Your task to perform on an android device: create a new album in the google photos Image 0: 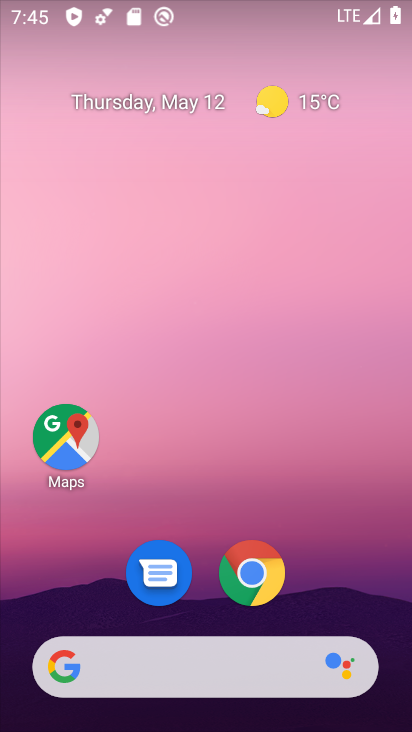
Step 0: drag from (221, 485) to (249, 49)
Your task to perform on an android device: create a new album in the google photos Image 1: 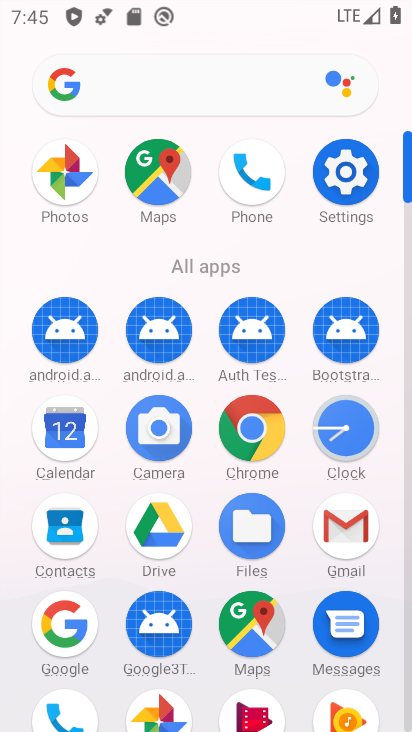
Step 1: click (60, 156)
Your task to perform on an android device: create a new album in the google photos Image 2: 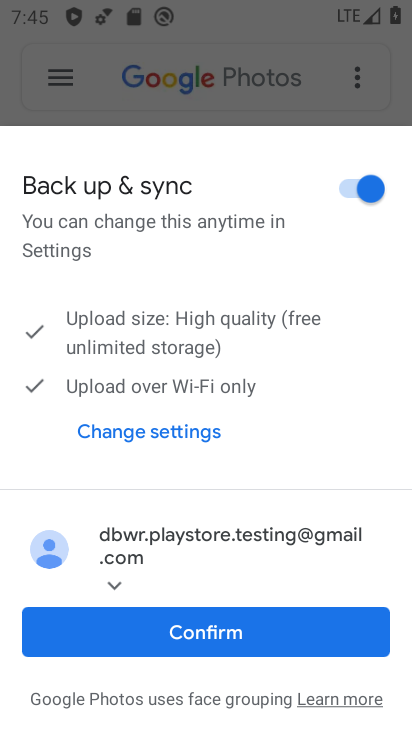
Step 2: click (304, 631)
Your task to perform on an android device: create a new album in the google photos Image 3: 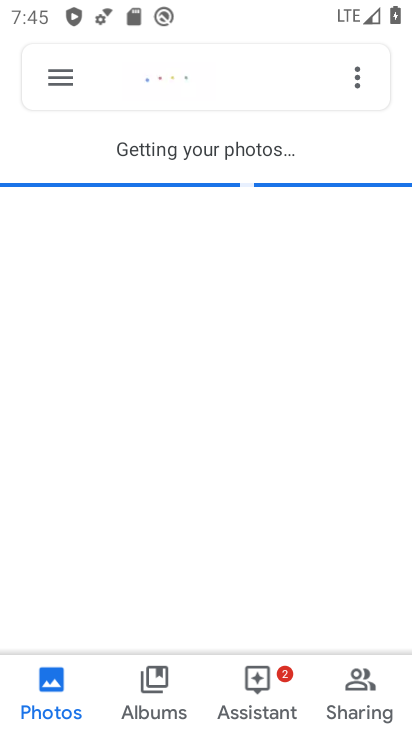
Step 3: click (163, 697)
Your task to perform on an android device: create a new album in the google photos Image 4: 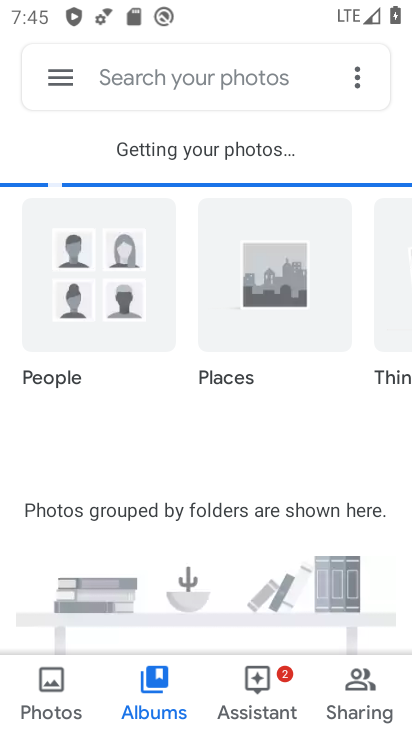
Step 4: click (353, 85)
Your task to perform on an android device: create a new album in the google photos Image 5: 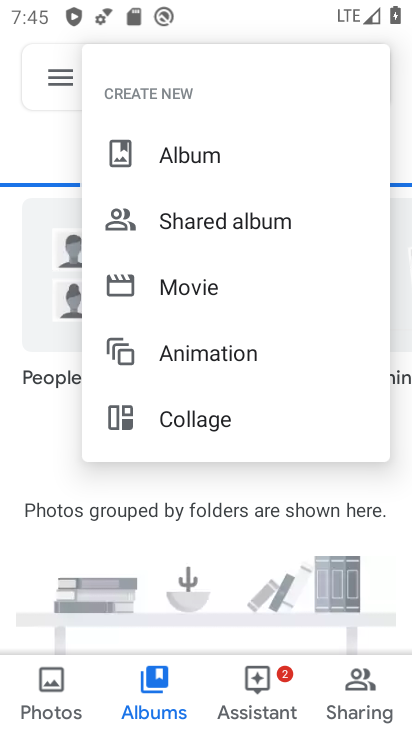
Step 5: click (275, 154)
Your task to perform on an android device: create a new album in the google photos Image 6: 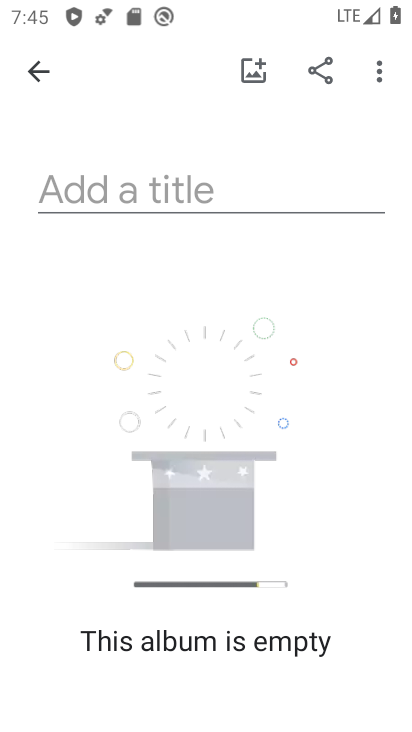
Step 6: type "Makkeshwar Mahadev"
Your task to perform on an android device: create a new album in the google photos Image 7: 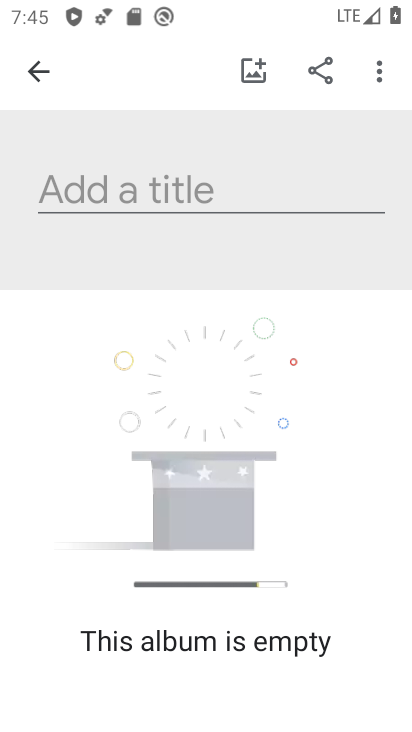
Step 7: click (271, 179)
Your task to perform on an android device: create a new album in the google photos Image 8: 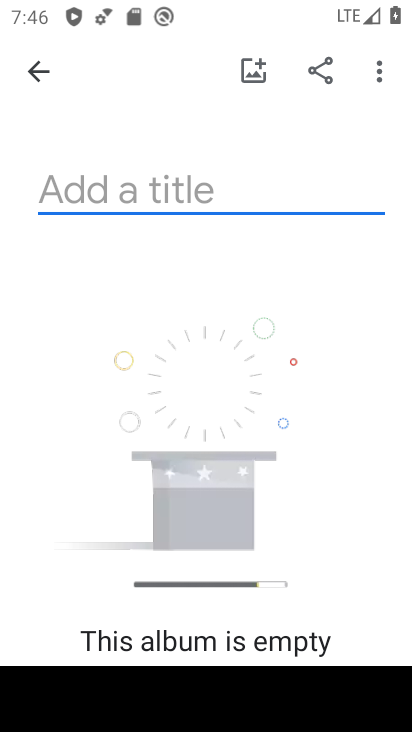
Step 8: type "Makkeshwar Mahadev"
Your task to perform on an android device: create a new album in the google photos Image 9: 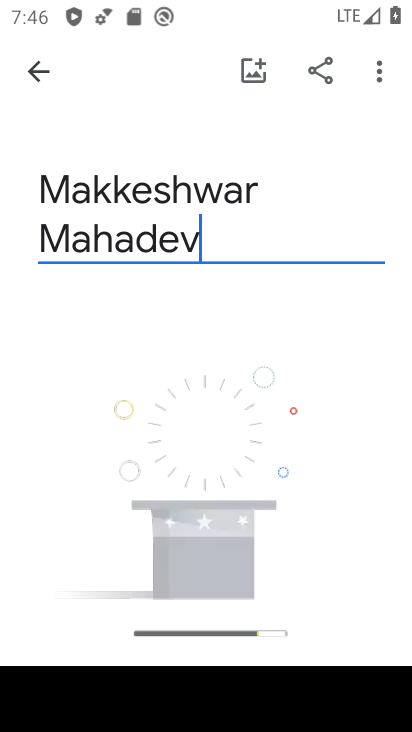
Step 9: drag from (224, 470) to (229, 211)
Your task to perform on an android device: create a new album in the google photos Image 10: 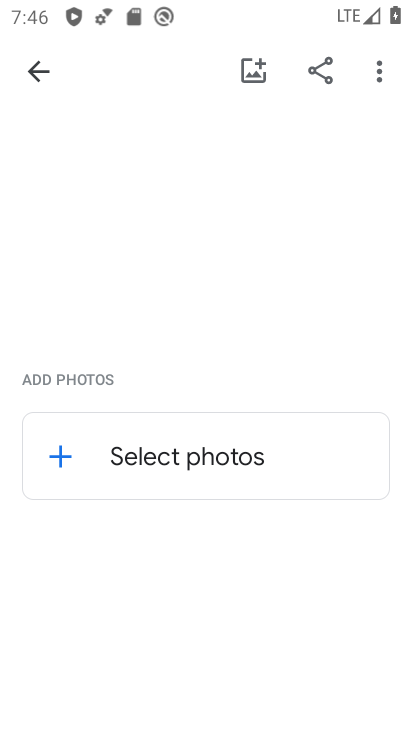
Step 10: click (176, 448)
Your task to perform on an android device: create a new album in the google photos Image 11: 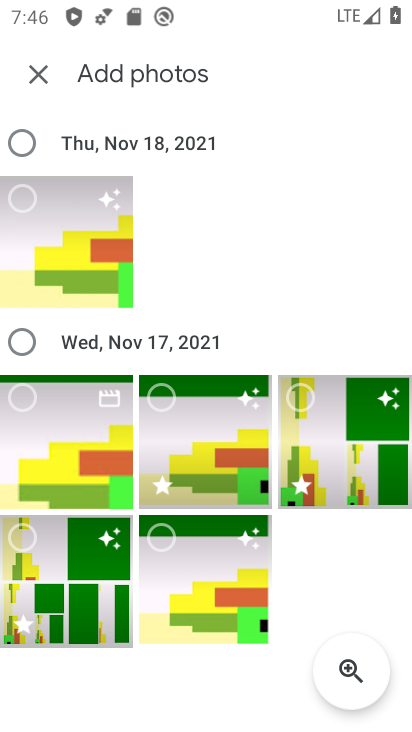
Step 11: click (24, 396)
Your task to perform on an android device: create a new album in the google photos Image 12: 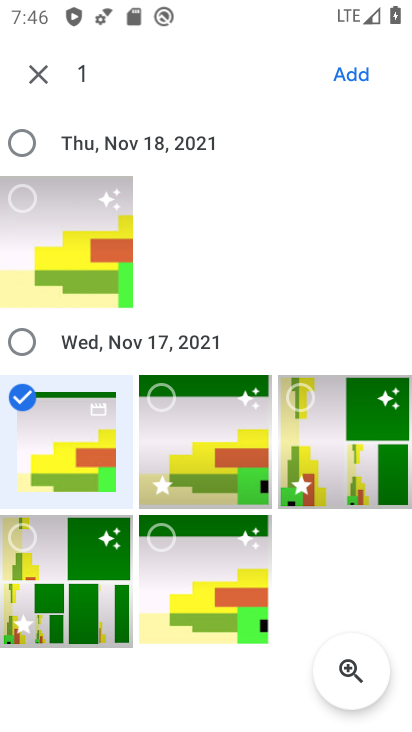
Step 12: click (354, 67)
Your task to perform on an android device: create a new album in the google photos Image 13: 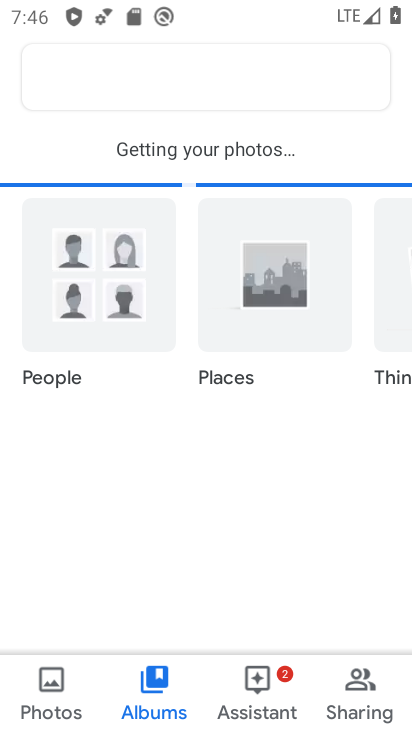
Step 13: task complete